Your task to perform on an android device: open app "Adobe Express: Graphic Design" (install if not already installed) and go to login screen Image 0: 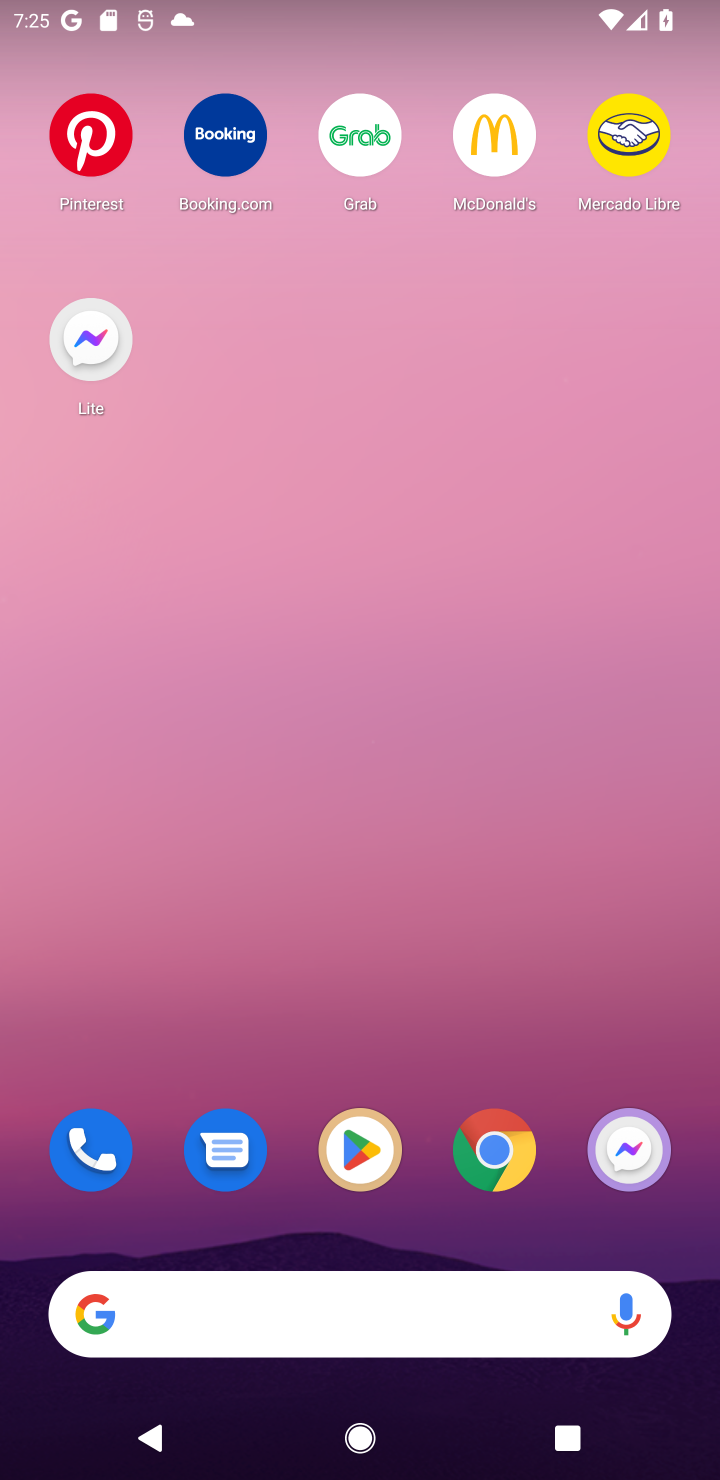
Step 0: click (370, 1139)
Your task to perform on an android device: open app "Adobe Express: Graphic Design" (install if not already installed) and go to login screen Image 1: 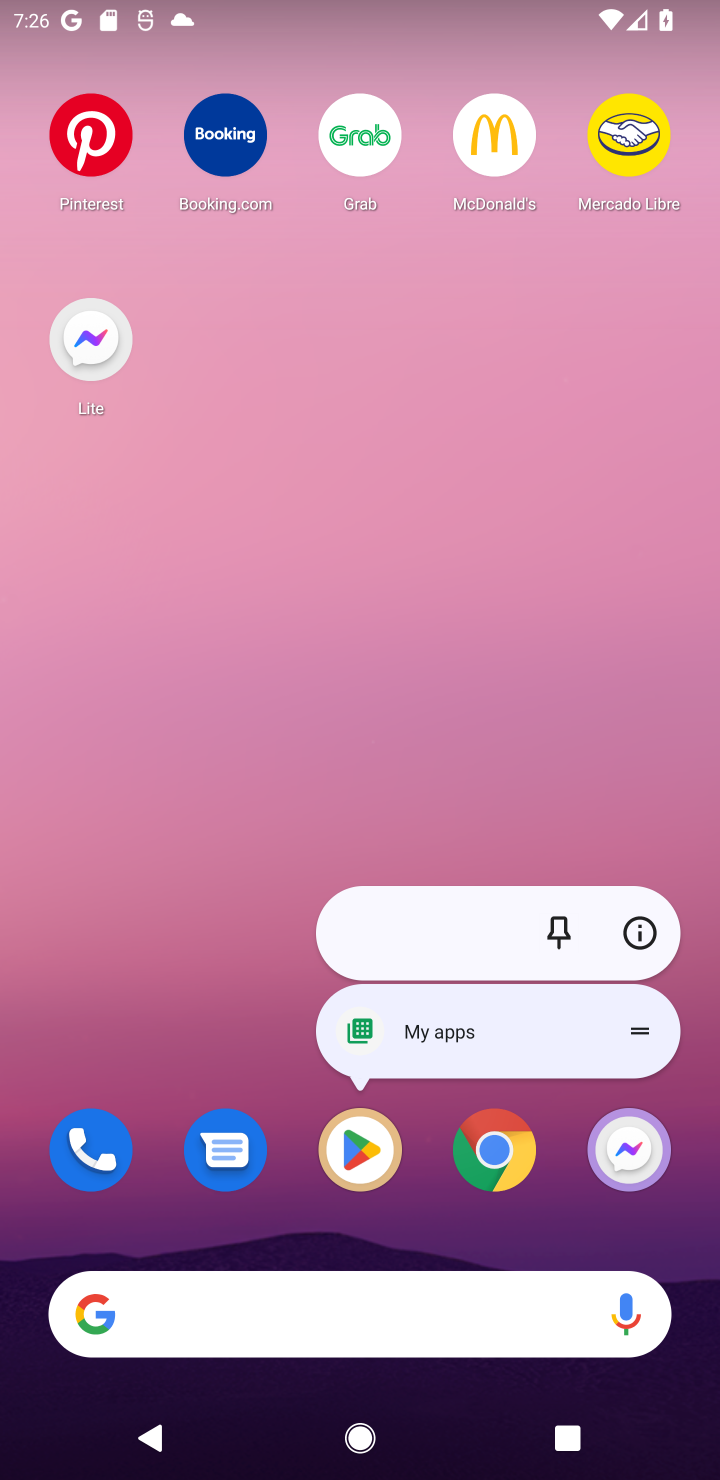
Step 1: click (356, 1131)
Your task to perform on an android device: open app "Adobe Express: Graphic Design" (install if not already installed) and go to login screen Image 2: 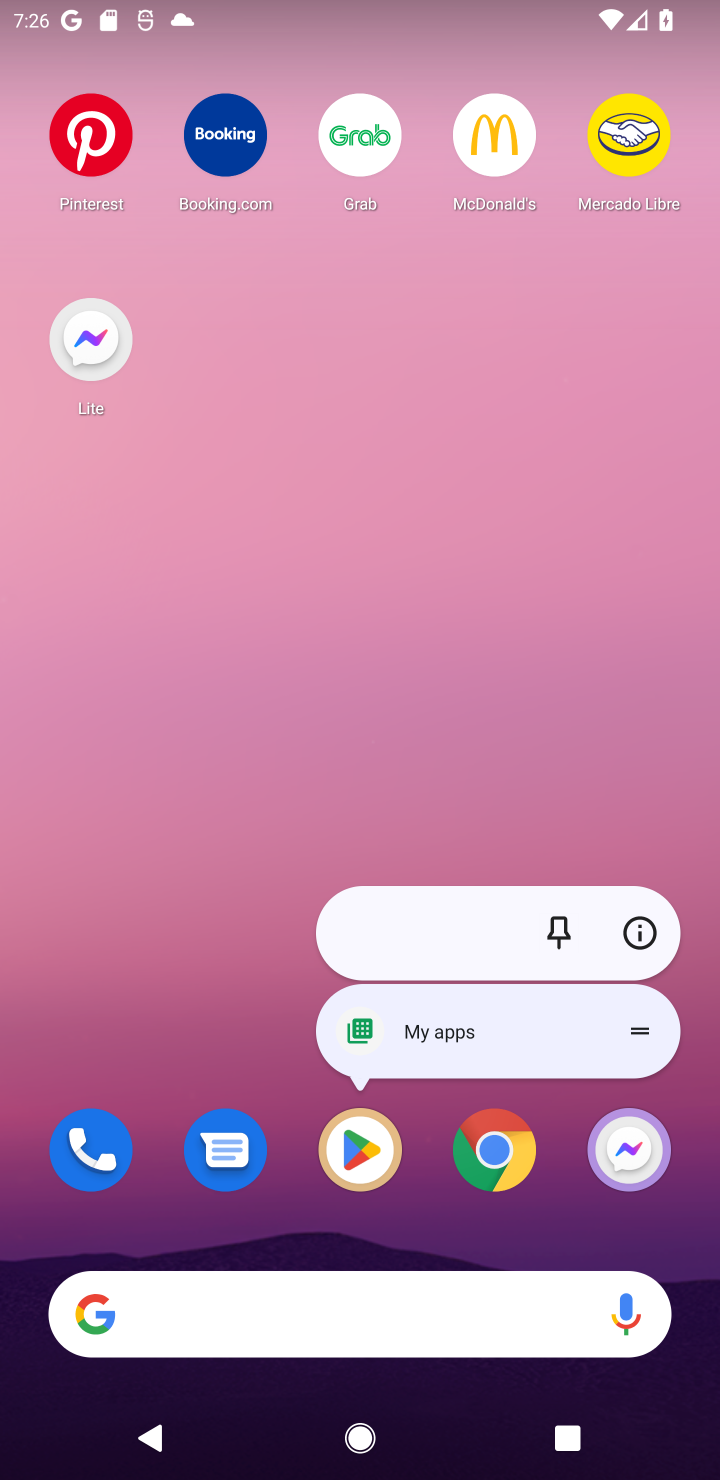
Step 2: click (339, 1166)
Your task to perform on an android device: open app "Adobe Express: Graphic Design" (install if not already installed) and go to login screen Image 3: 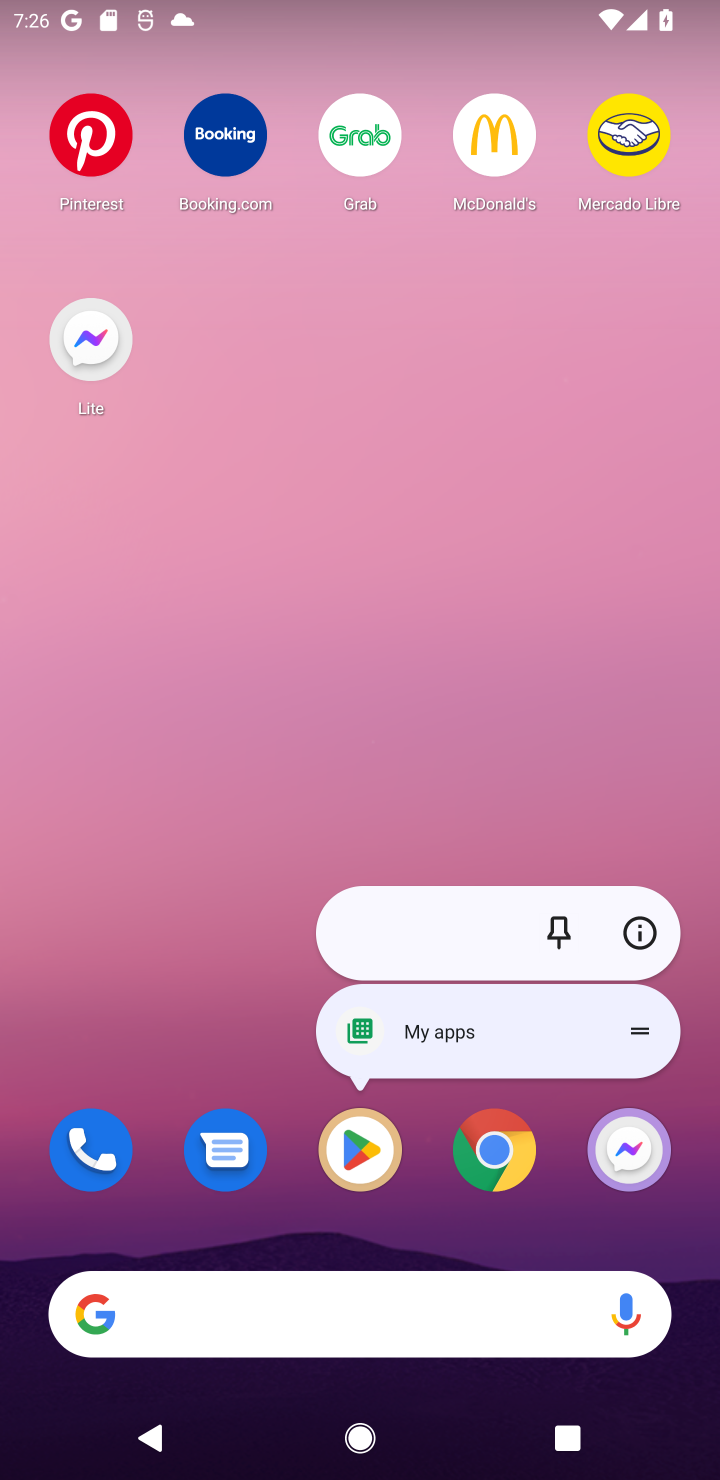
Step 3: click (373, 1185)
Your task to perform on an android device: open app "Adobe Express: Graphic Design" (install if not already installed) and go to login screen Image 4: 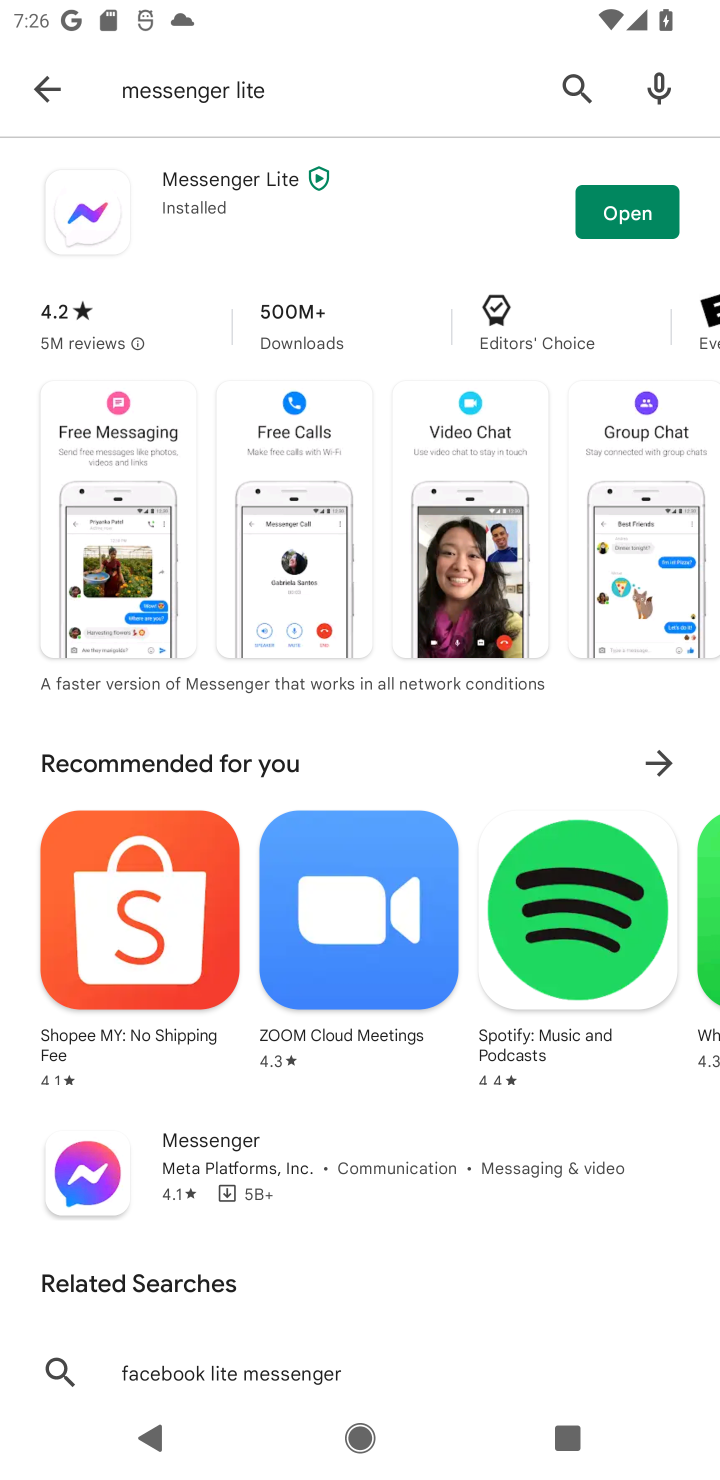
Step 4: click (30, 102)
Your task to perform on an android device: open app "Adobe Express: Graphic Design" (install if not already installed) and go to login screen Image 5: 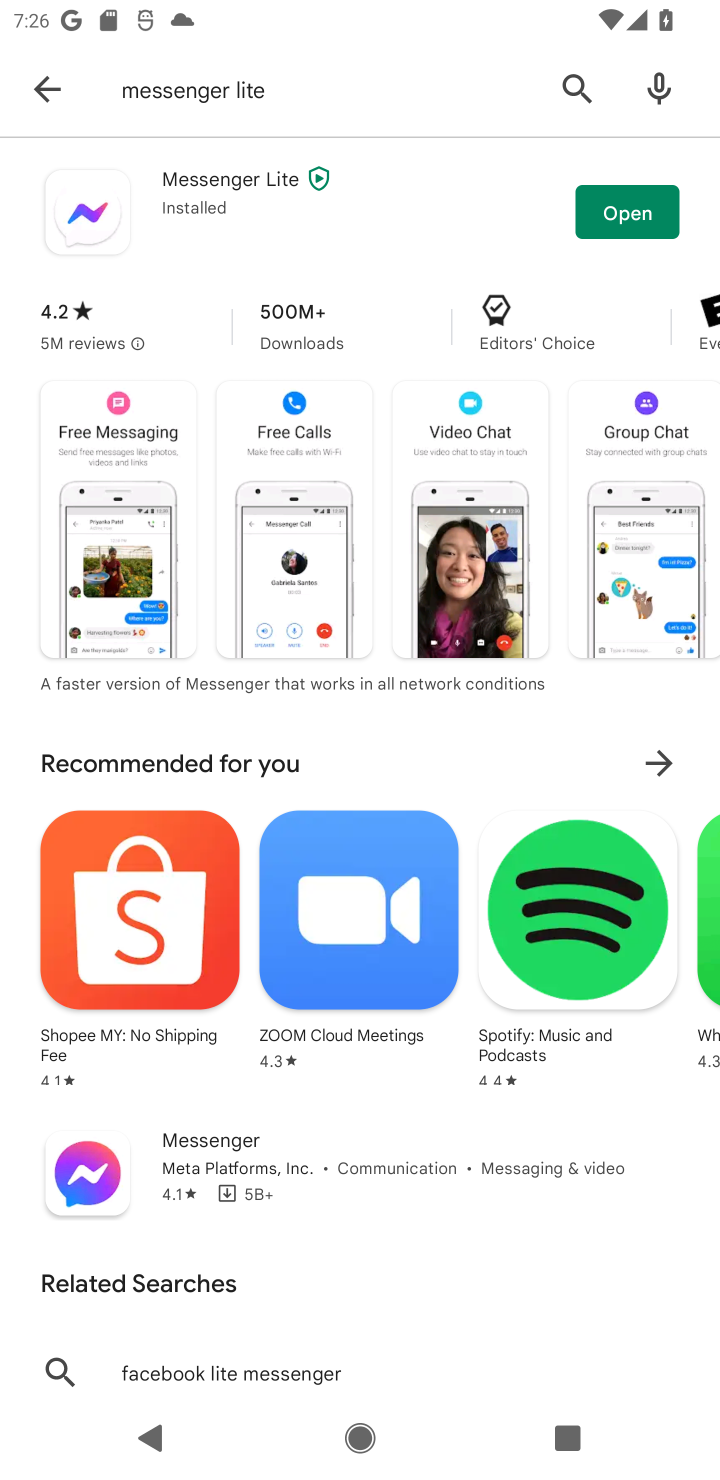
Step 5: click (22, 81)
Your task to perform on an android device: open app "Adobe Express: Graphic Design" (install if not already installed) and go to login screen Image 6: 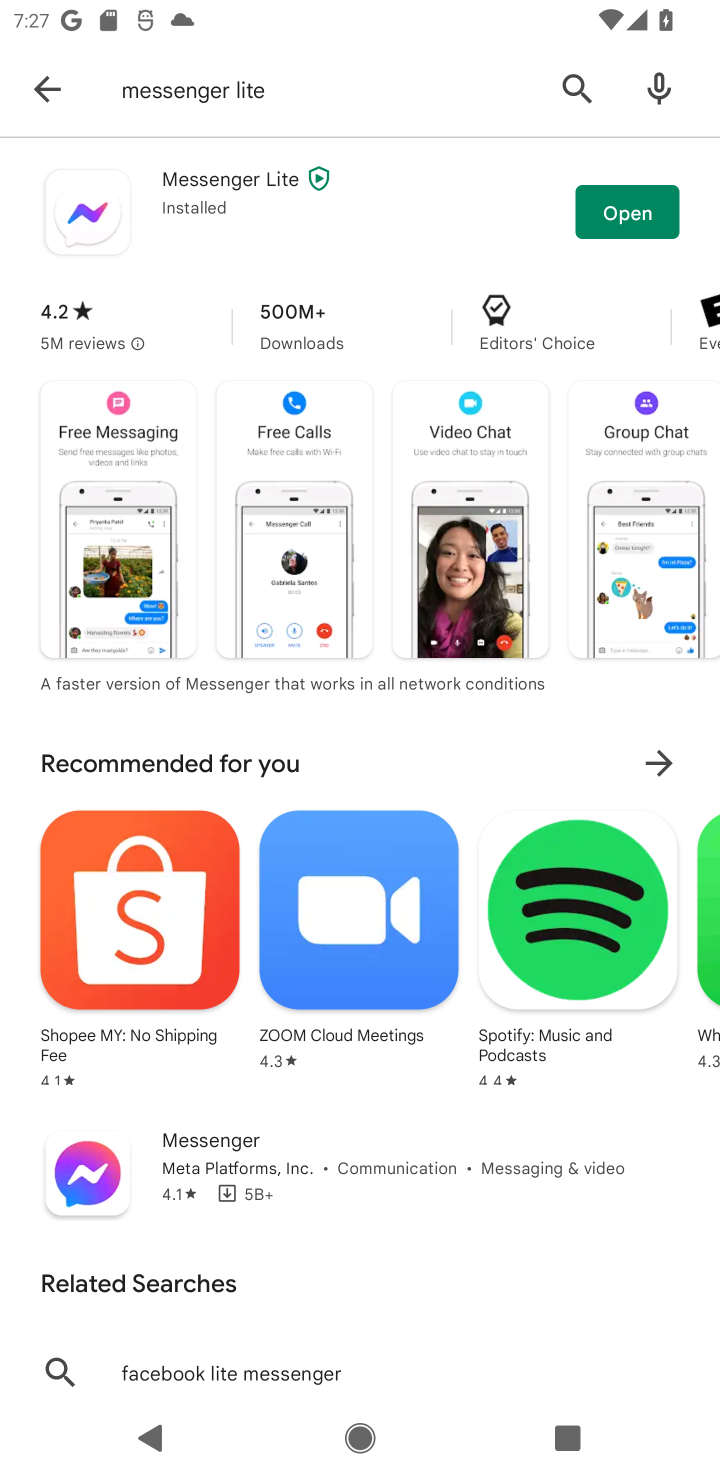
Step 6: click (56, 101)
Your task to perform on an android device: open app "Adobe Express: Graphic Design" (install if not already installed) and go to login screen Image 7: 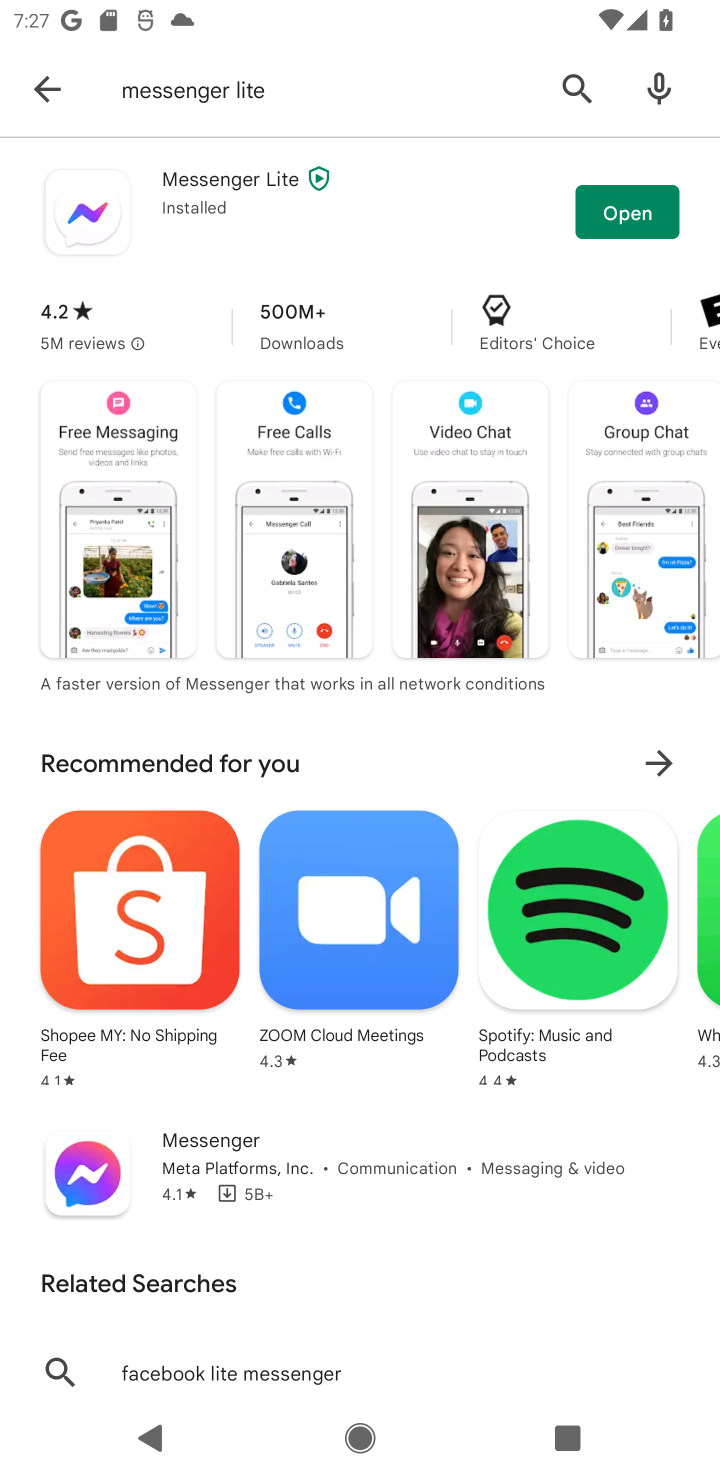
Step 7: click (41, 114)
Your task to perform on an android device: open app "Adobe Express: Graphic Design" (install if not already installed) and go to login screen Image 8: 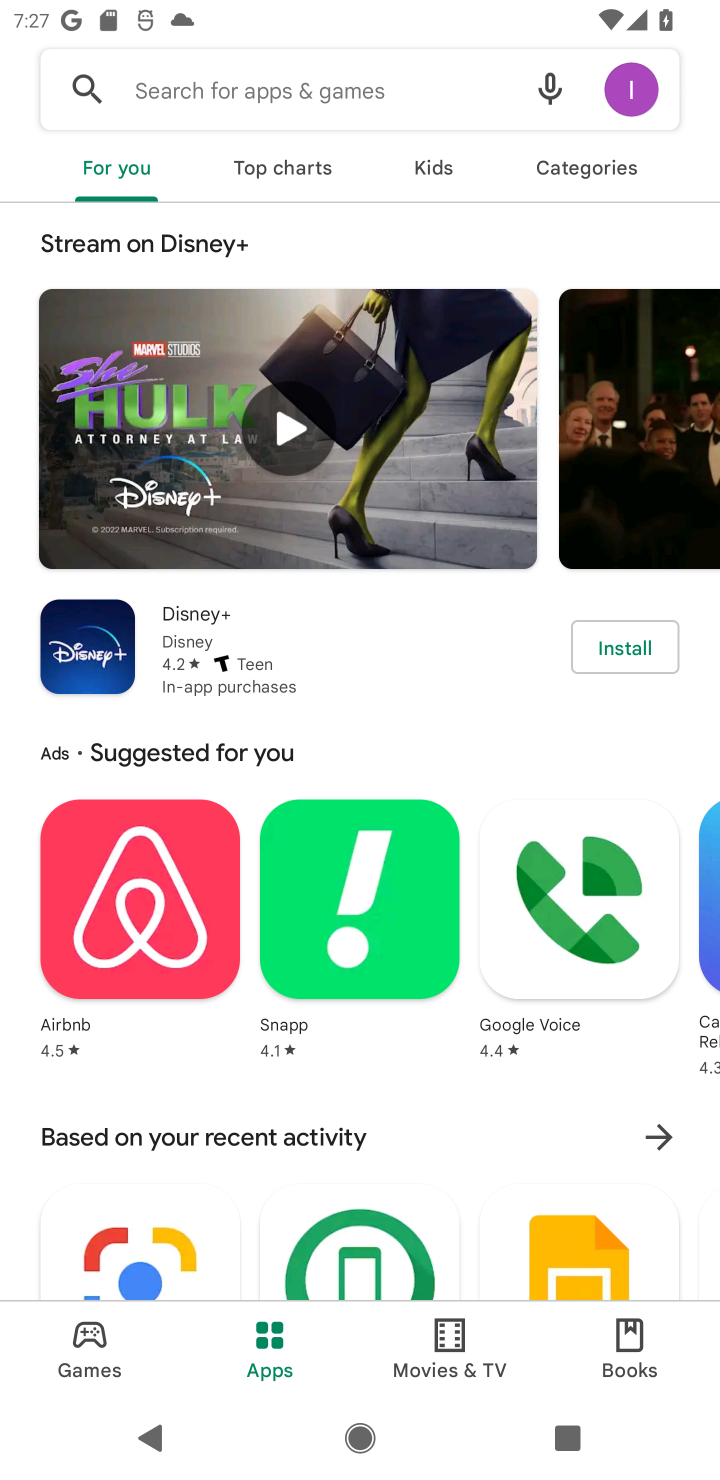
Step 8: click (183, 85)
Your task to perform on an android device: open app "Adobe Express: Graphic Design" (install if not already installed) and go to login screen Image 9: 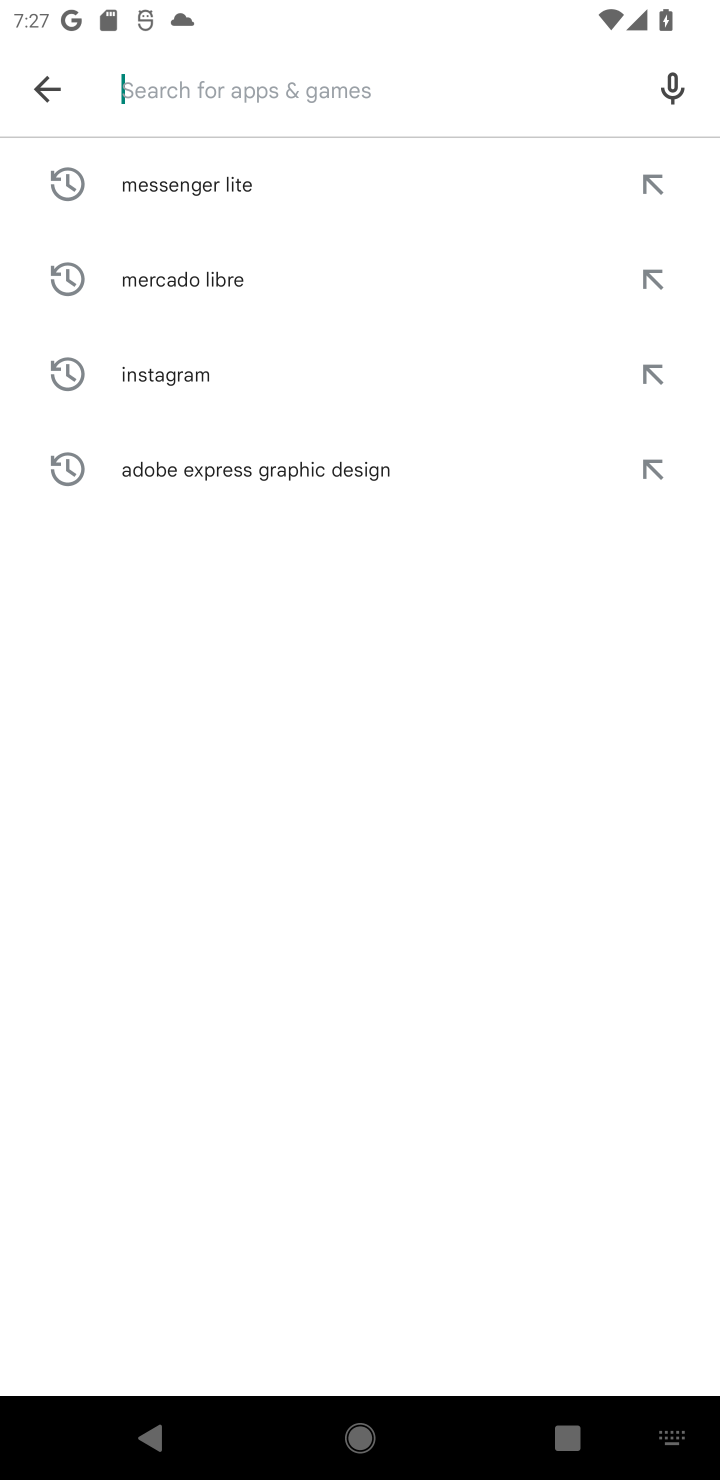
Step 9: type "dobe Express"
Your task to perform on an android device: open app "Adobe Express: Graphic Design" (install if not already installed) and go to login screen Image 10: 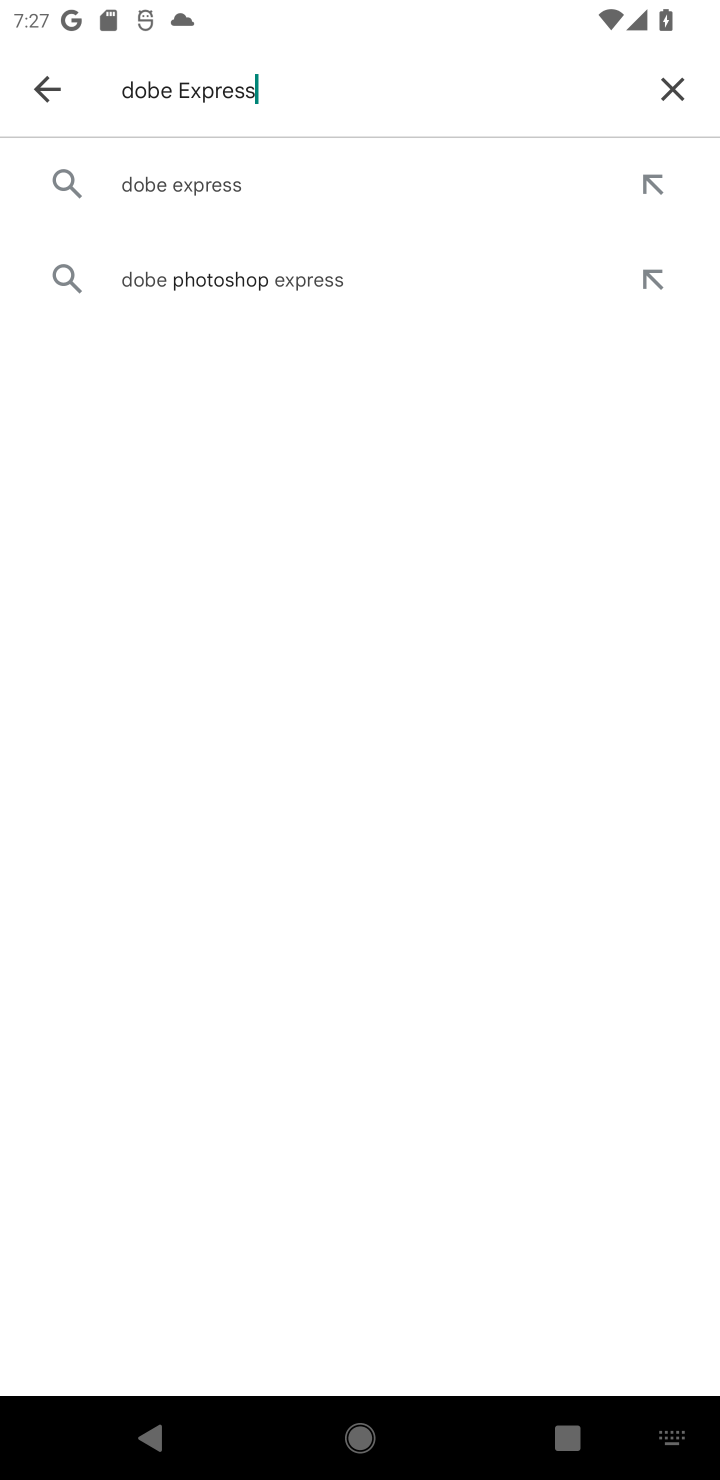
Step 10: click (142, 183)
Your task to perform on an android device: open app "Adobe Express: Graphic Design" (install if not already installed) and go to login screen Image 11: 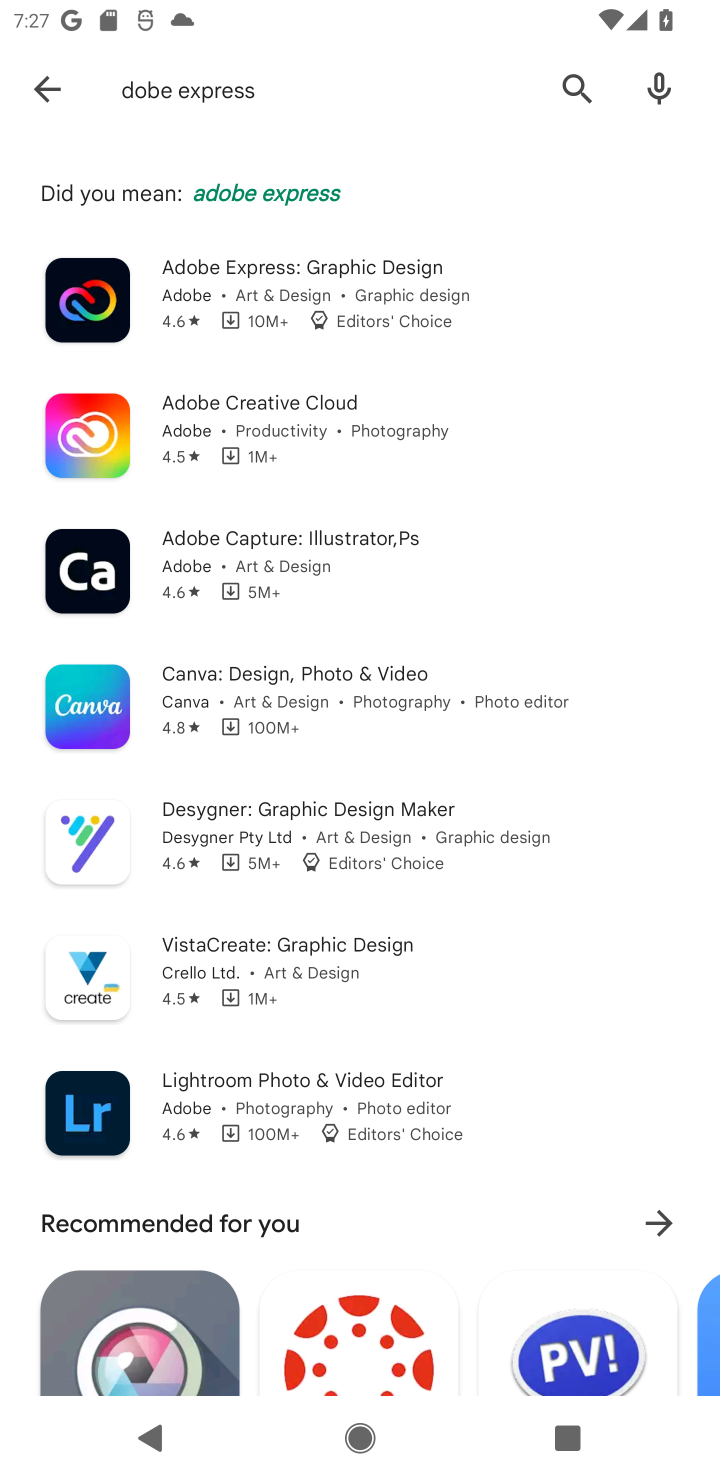
Step 11: click (355, 346)
Your task to perform on an android device: open app "Adobe Express: Graphic Design" (install if not already installed) and go to login screen Image 12: 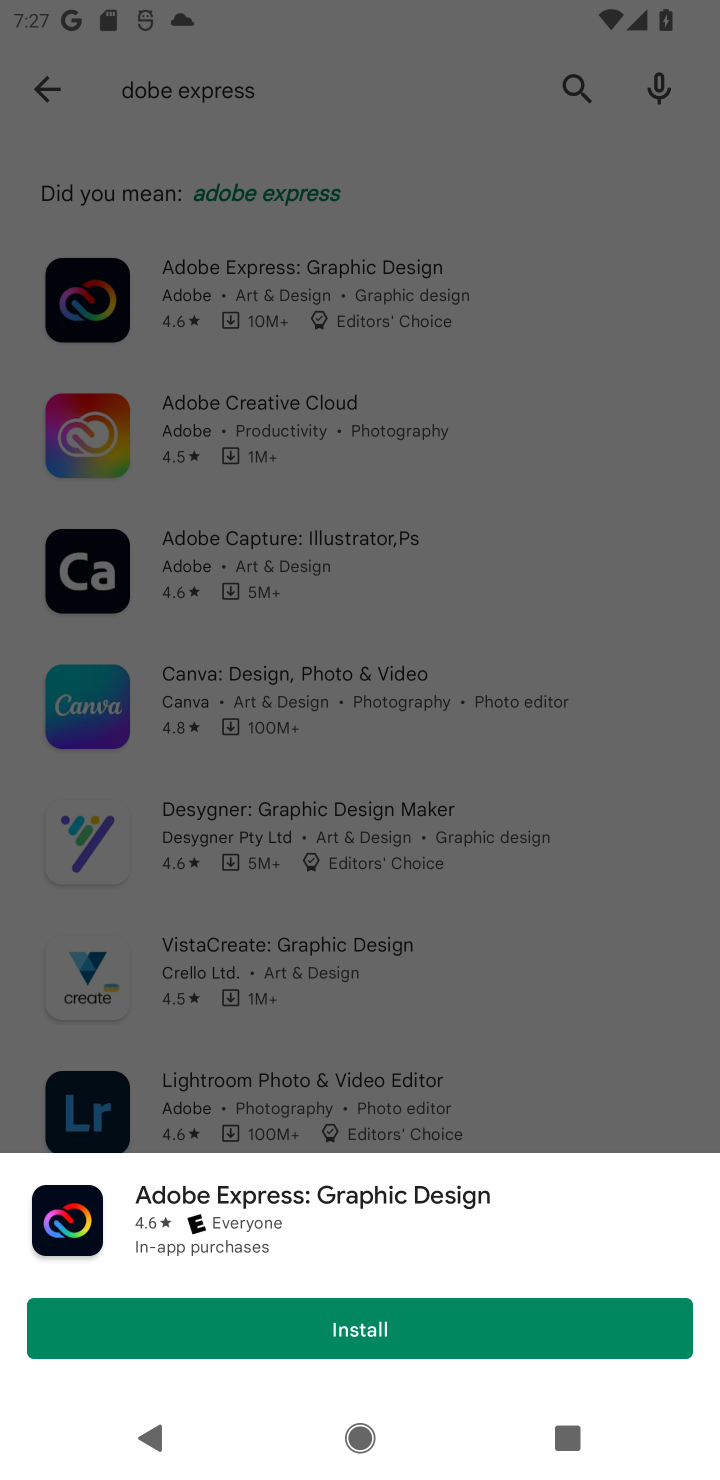
Step 12: click (388, 1343)
Your task to perform on an android device: open app "Adobe Express: Graphic Design" (install if not already installed) and go to login screen Image 13: 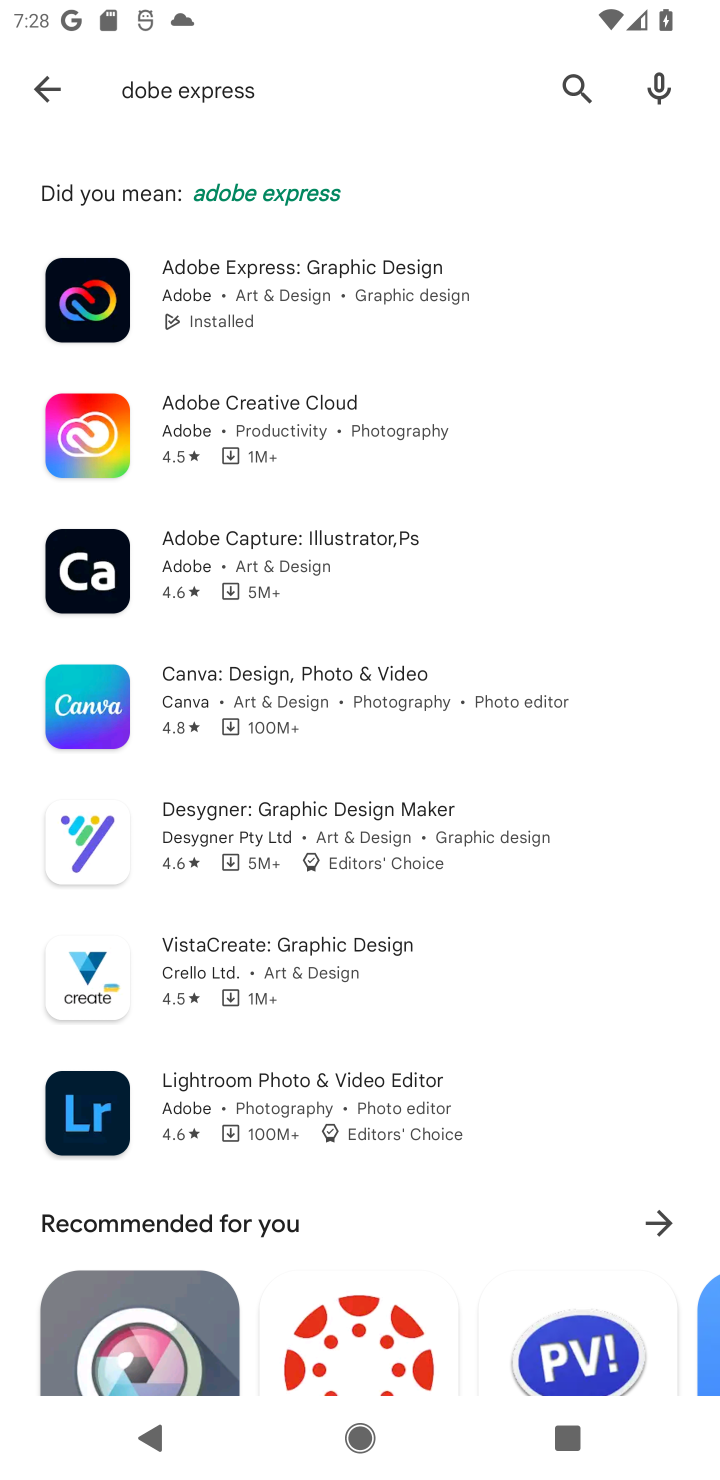
Step 13: click (266, 326)
Your task to perform on an android device: open app "Adobe Express: Graphic Design" (install if not already installed) and go to login screen Image 14: 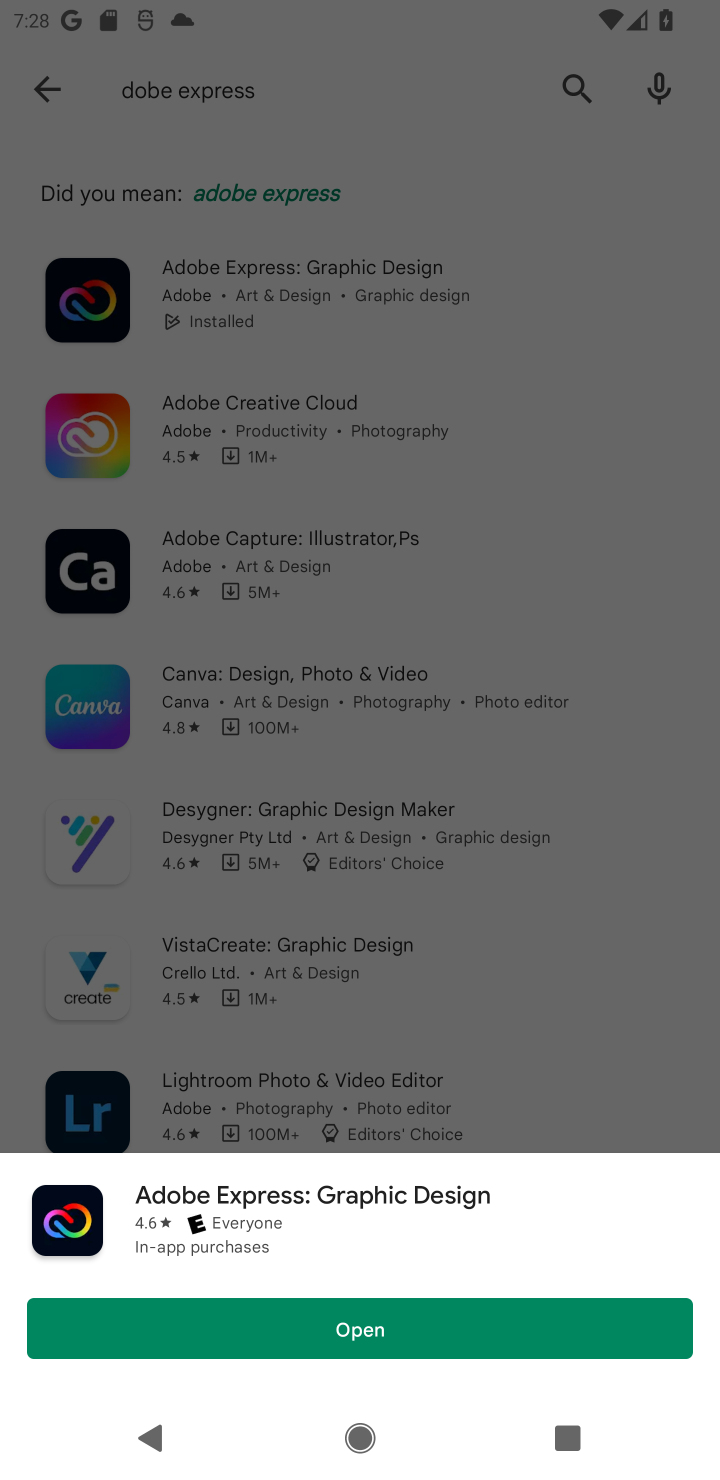
Step 14: click (390, 1324)
Your task to perform on an android device: open app "Adobe Express: Graphic Design" (install if not already installed) and go to login screen Image 15: 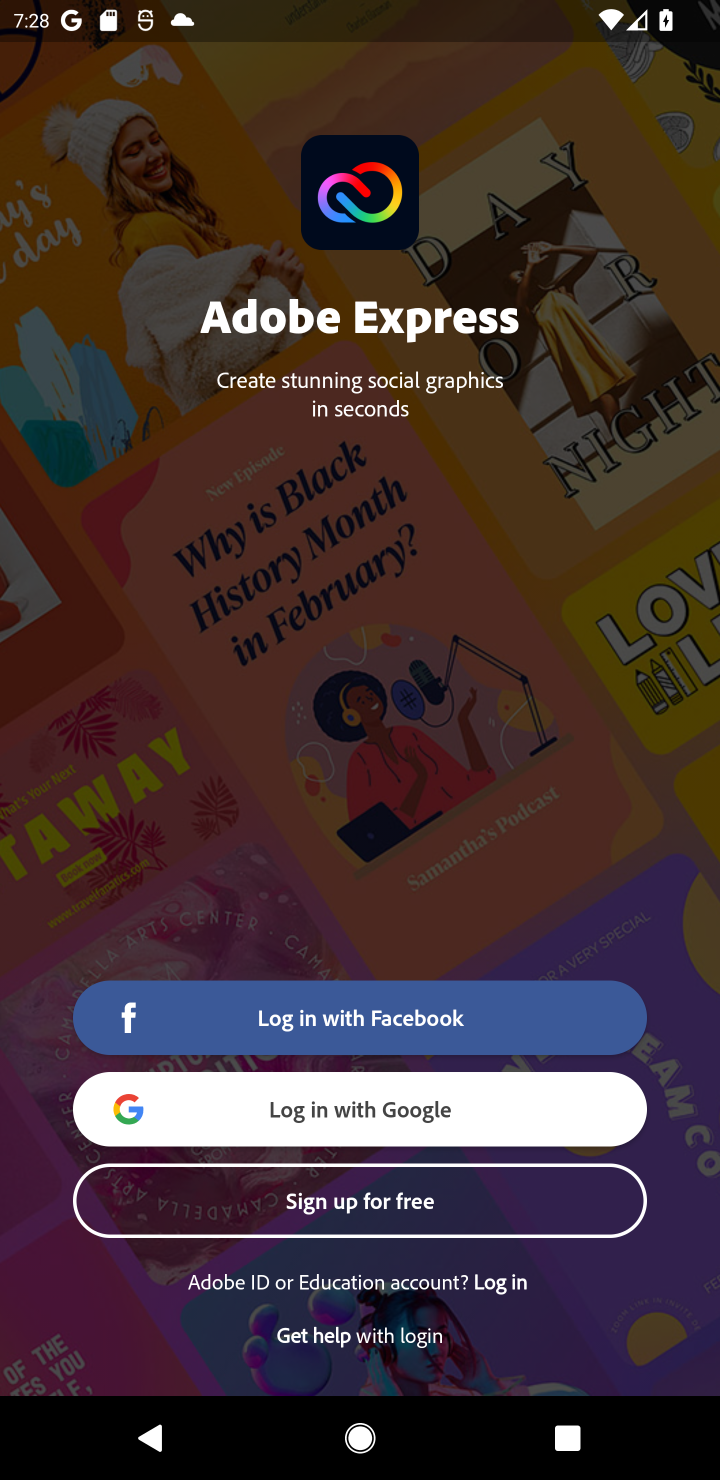
Step 15: click (494, 1281)
Your task to perform on an android device: open app "Adobe Express: Graphic Design" (install if not already installed) and go to login screen Image 16: 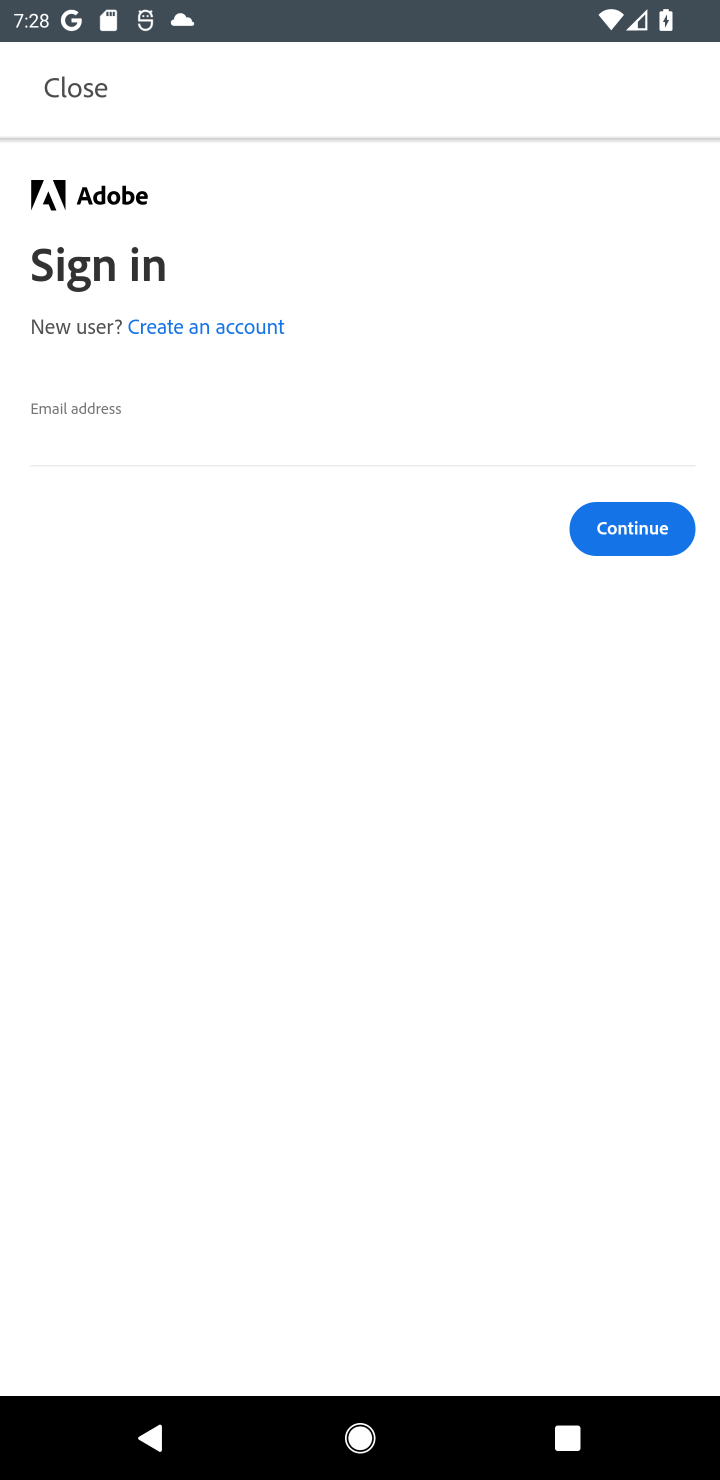
Step 16: task complete